Your task to perform on an android device: Go to Google Image 0: 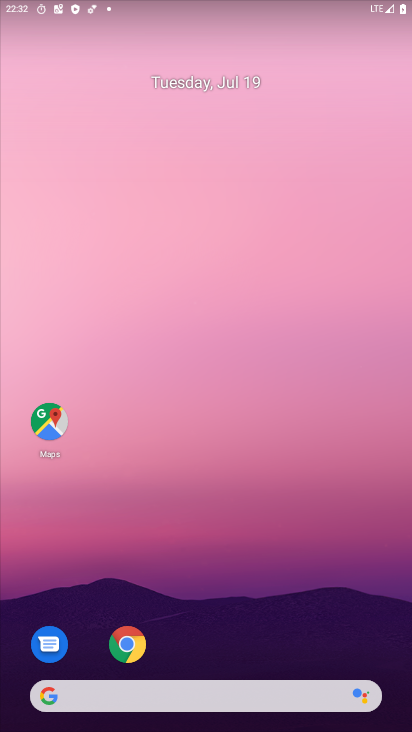
Step 0: press home button
Your task to perform on an android device: Go to Google Image 1: 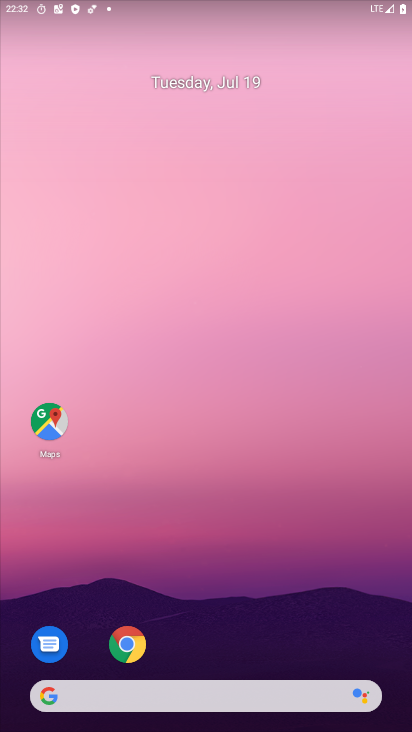
Step 1: drag from (273, 613) to (334, 76)
Your task to perform on an android device: Go to Google Image 2: 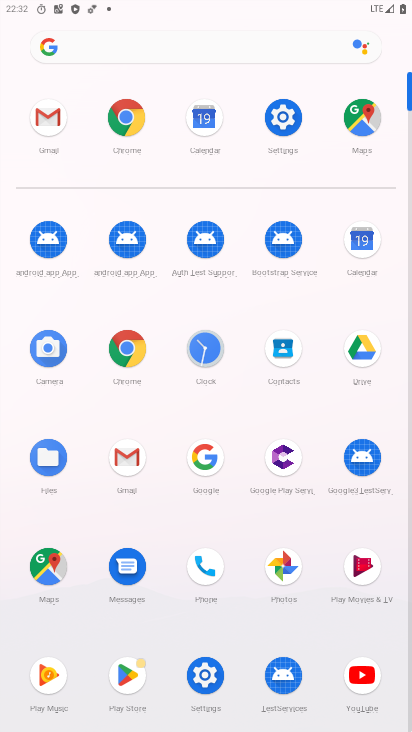
Step 2: click (222, 460)
Your task to perform on an android device: Go to Google Image 3: 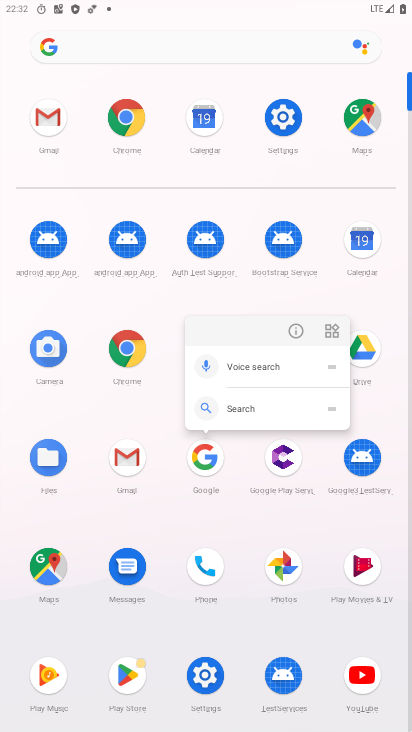
Step 3: click (220, 456)
Your task to perform on an android device: Go to Google Image 4: 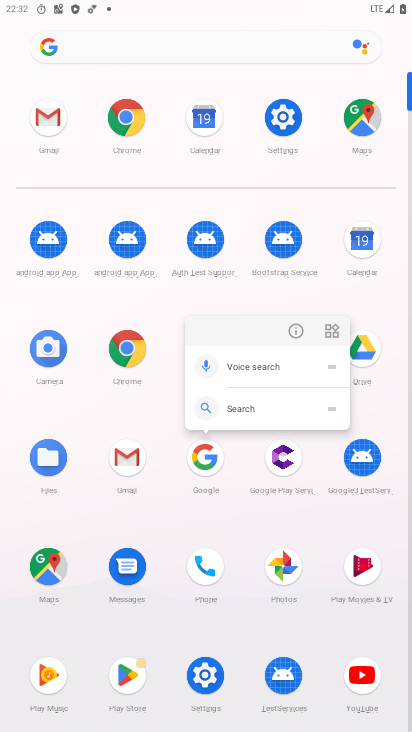
Step 4: click (220, 456)
Your task to perform on an android device: Go to Google Image 5: 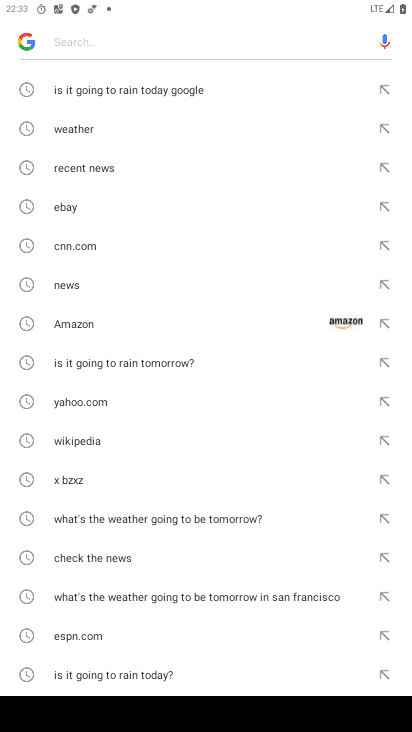
Step 5: task complete